Your task to perform on an android device: Open internet settings Image 0: 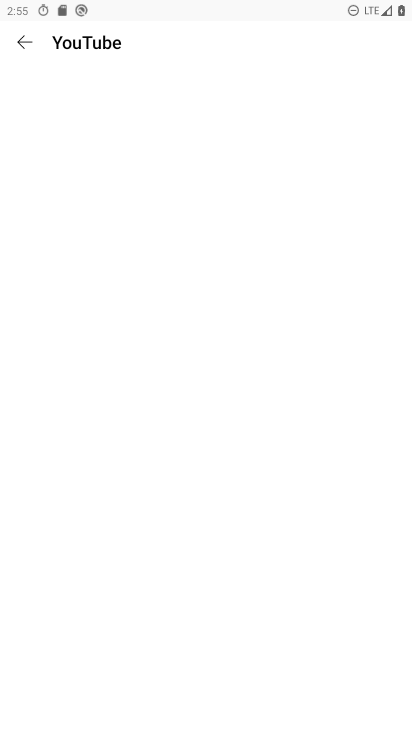
Step 0: drag from (175, 606) to (266, 142)
Your task to perform on an android device: Open internet settings Image 1: 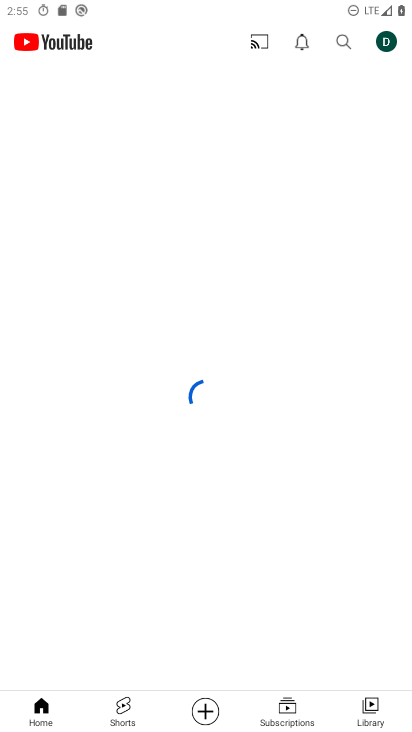
Step 1: press home button
Your task to perform on an android device: Open internet settings Image 2: 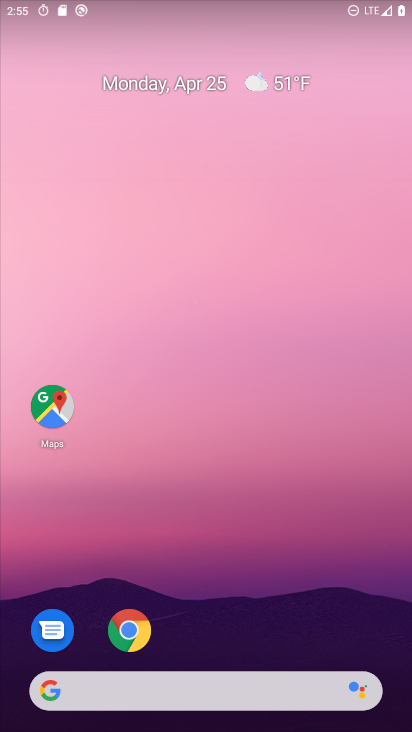
Step 2: drag from (220, 568) to (291, 71)
Your task to perform on an android device: Open internet settings Image 3: 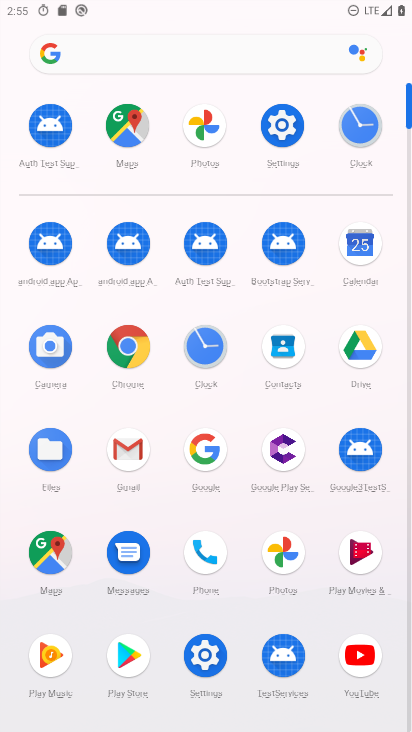
Step 3: click (270, 118)
Your task to perform on an android device: Open internet settings Image 4: 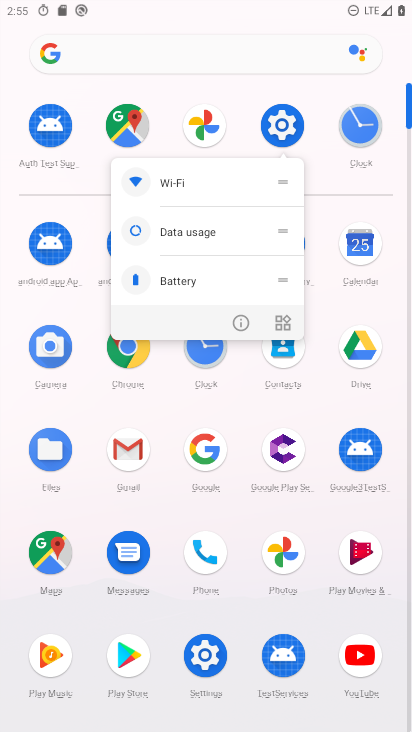
Step 4: click (237, 326)
Your task to perform on an android device: Open internet settings Image 5: 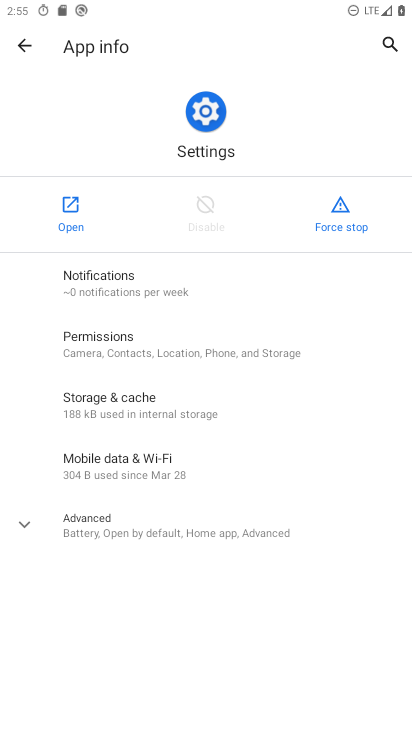
Step 5: click (57, 197)
Your task to perform on an android device: Open internet settings Image 6: 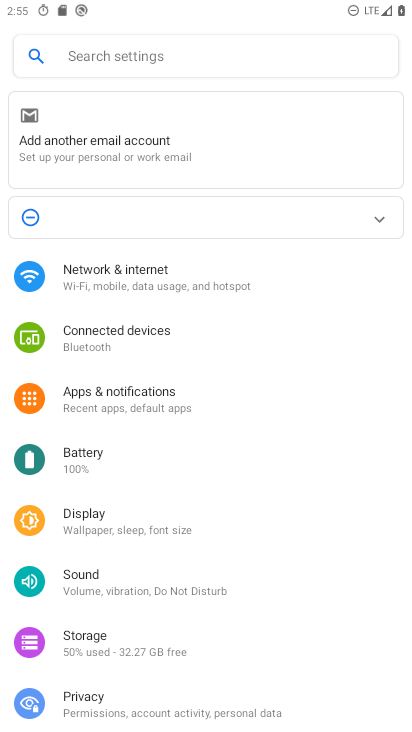
Step 6: click (139, 271)
Your task to perform on an android device: Open internet settings Image 7: 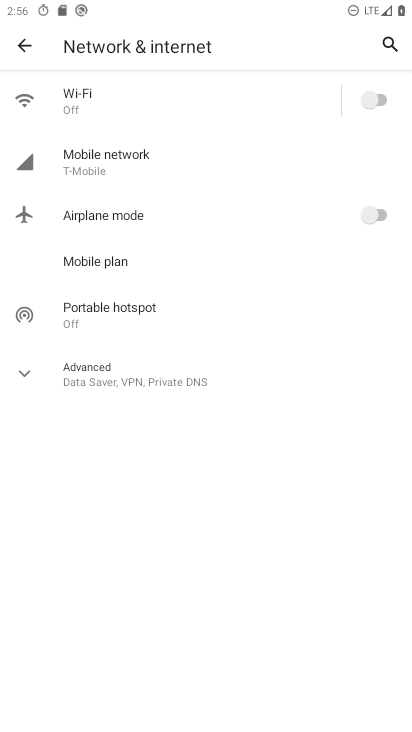
Step 7: task complete